Your task to perform on an android device: find snoozed emails in the gmail app Image 0: 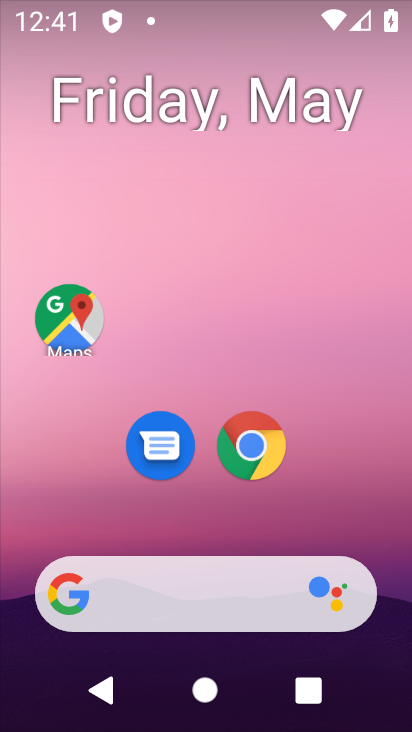
Step 0: click (355, 120)
Your task to perform on an android device: find snoozed emails in the gmail app Image 1: 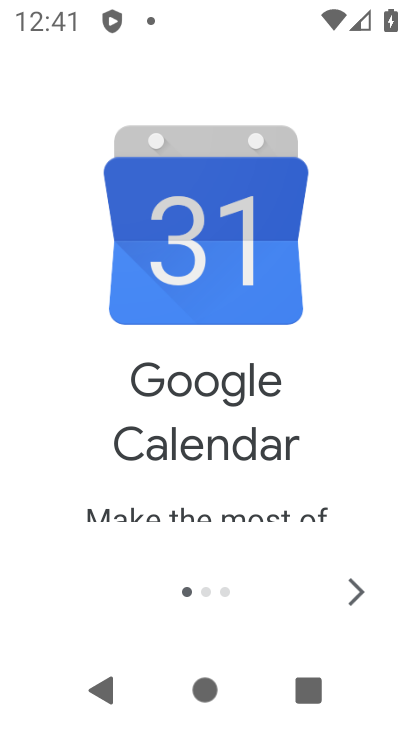
Step 1: press home button
Your task to perform on an android device: find snoozed emails in the gmail app Image 2: 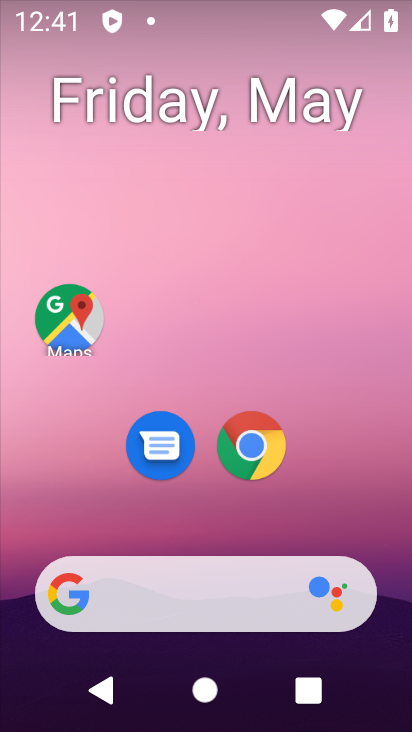
Step 2: drag from (393, 588) to (370, 101)
Your task to perform on an android device: find snoozed emails in the gmail app Image 3: 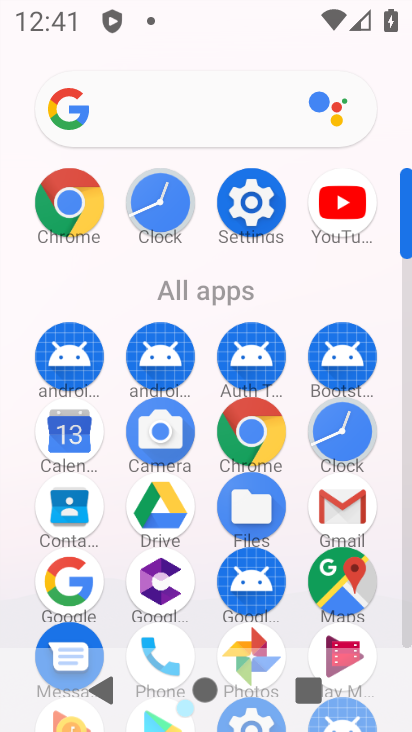
Step 3: click (404, 629)
Your task to perform on an android device: find snoozed emails in the gmail app Image 4: 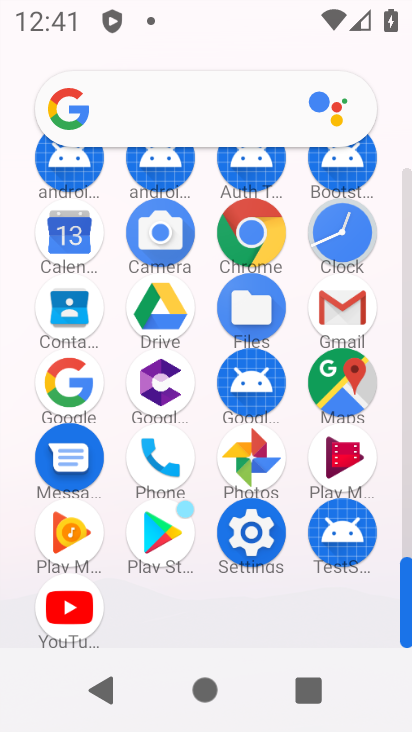
Step 4: click (338, 302)
Your task to perform on an android device: find snoozed emails in the gmail app Image 5: 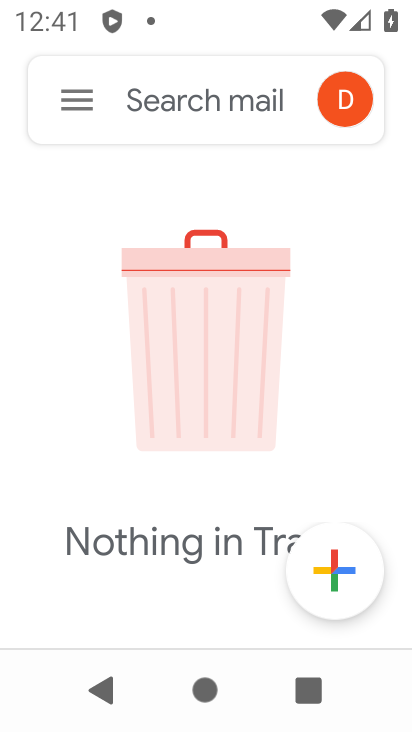
Step 5: click (79, 102)
Your task to perform on an android device: find snoozed emails in the gmail app Image 6: 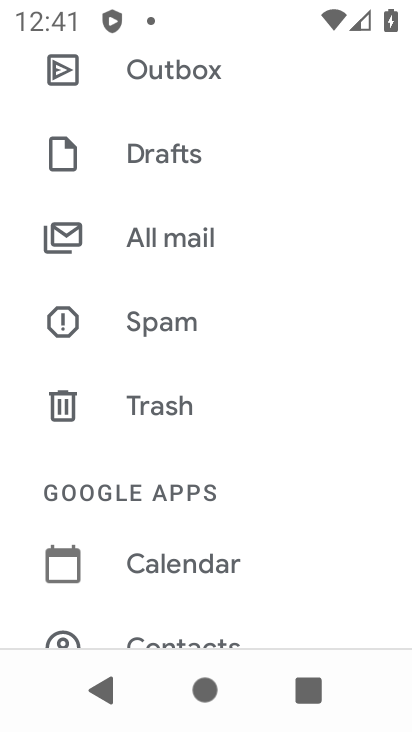
Step 6: drag from (295, 168) to (225, 540)
Your task to perform on an android device: find snoozed emails in the gmail app Image 7: 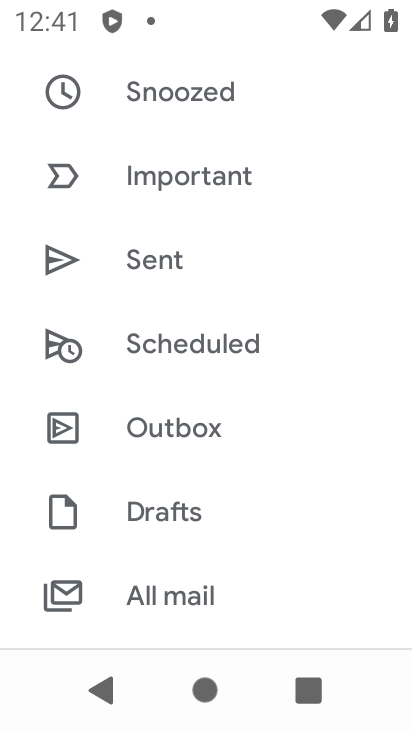
Step 7: drag from (326, 163) to (262, 429)
Your task to perform on an android device: find snoozed emails in the gmail app Image 8: 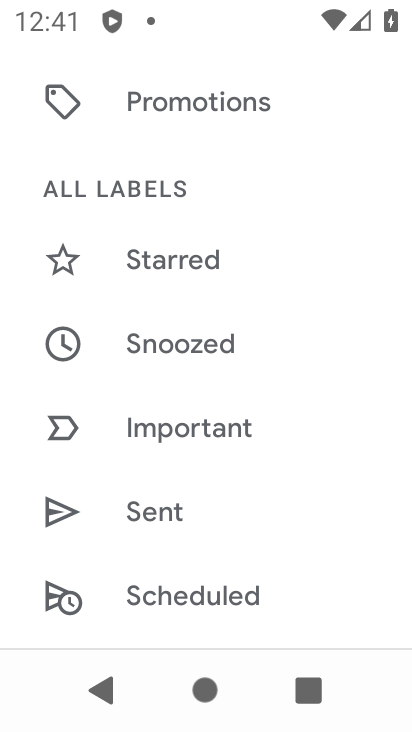
Step 8: click (179, 330)
Your task to perform on an android device: find snoozed emails in the gmail app Image 9: 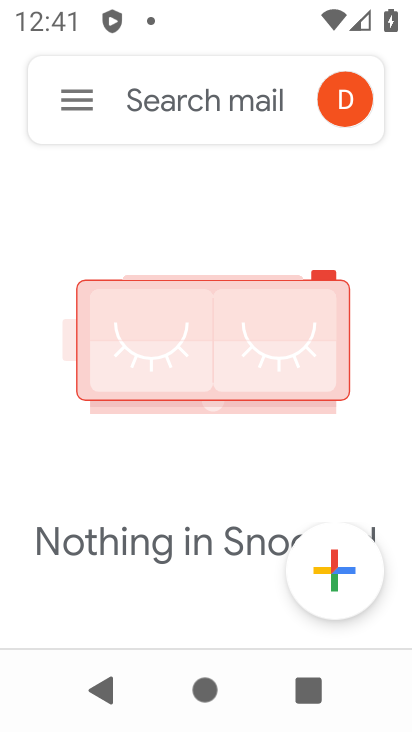
Step 9: task complete